Your task to perform on an android device: toggle javascript in the chrome app Image 0: 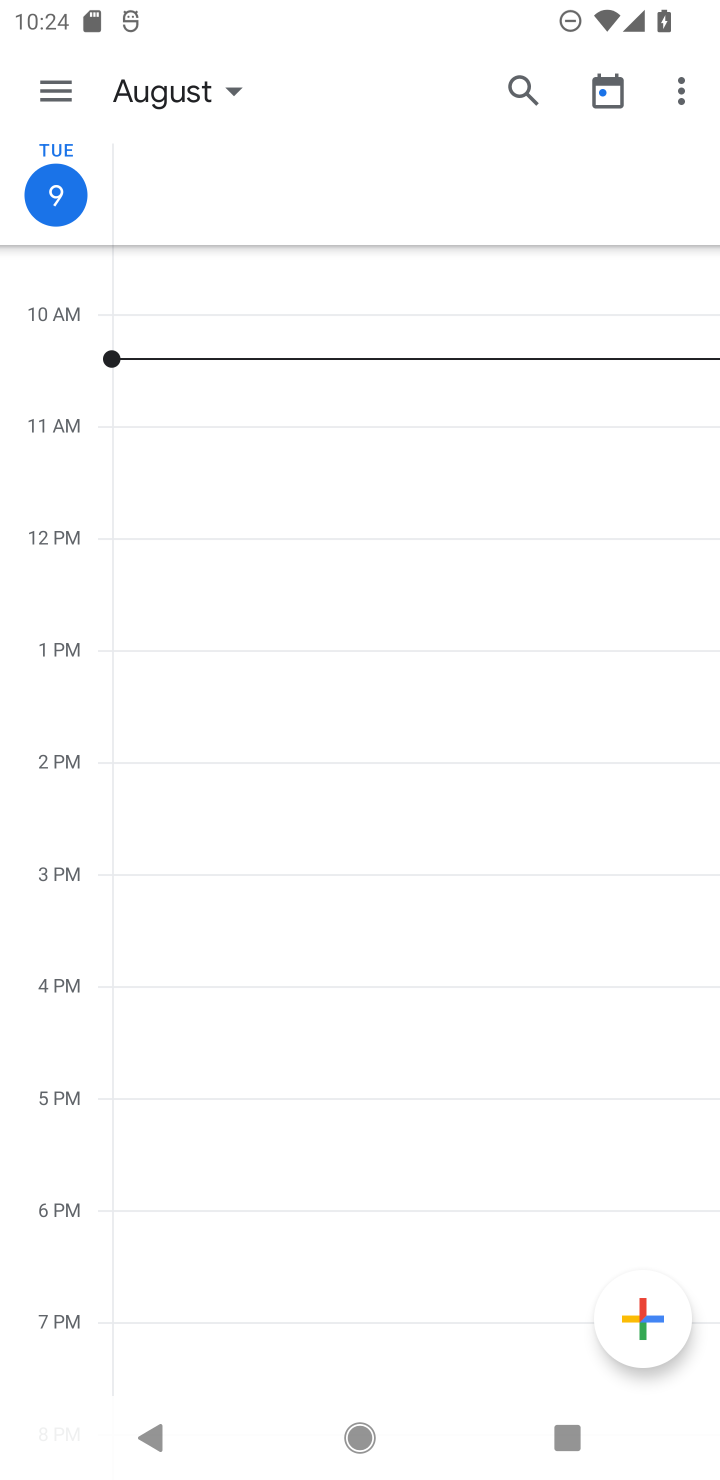
Step 0: press home button
Your task to perform on an android device: toggle javascript in the chrome app Image 1: 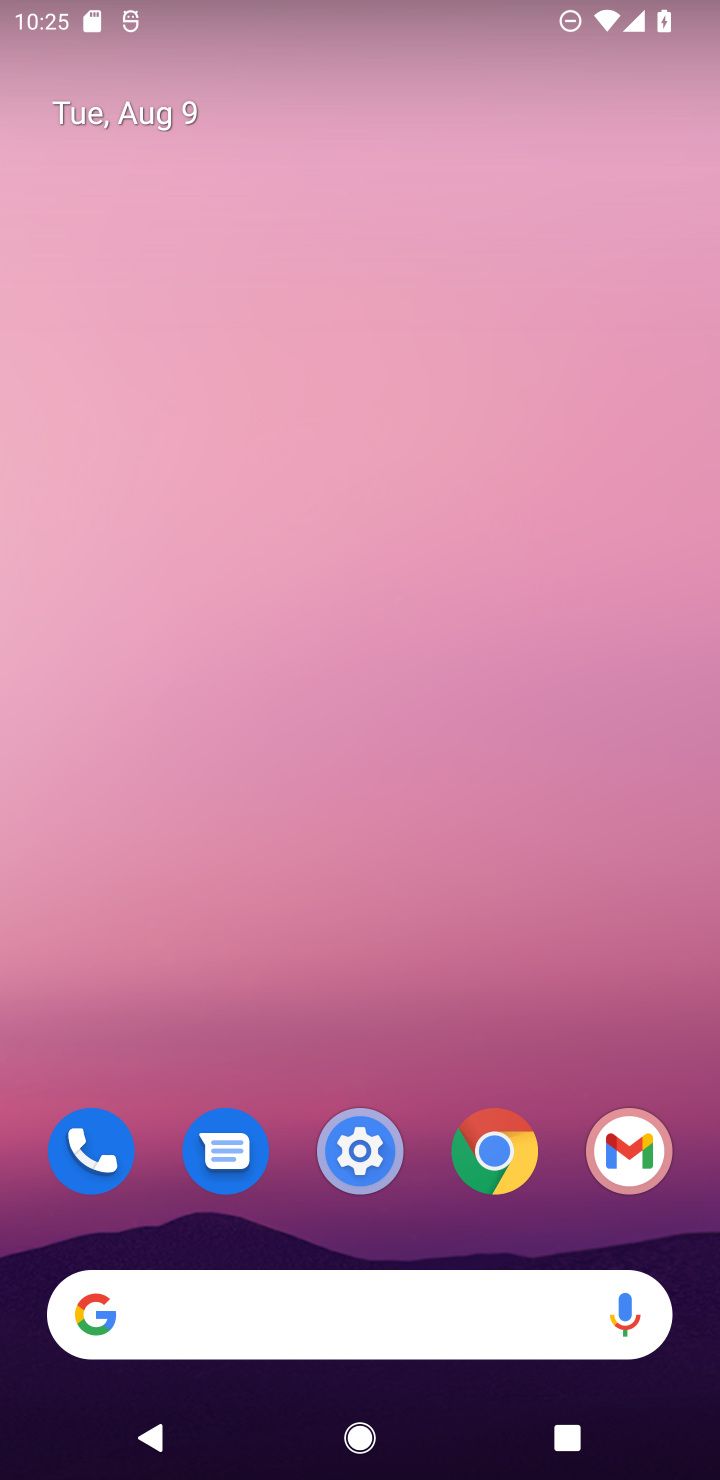
Step 1: click (489, 1130)
Your task to perform on an android device: toggle javascript in the chrome app Image 2: 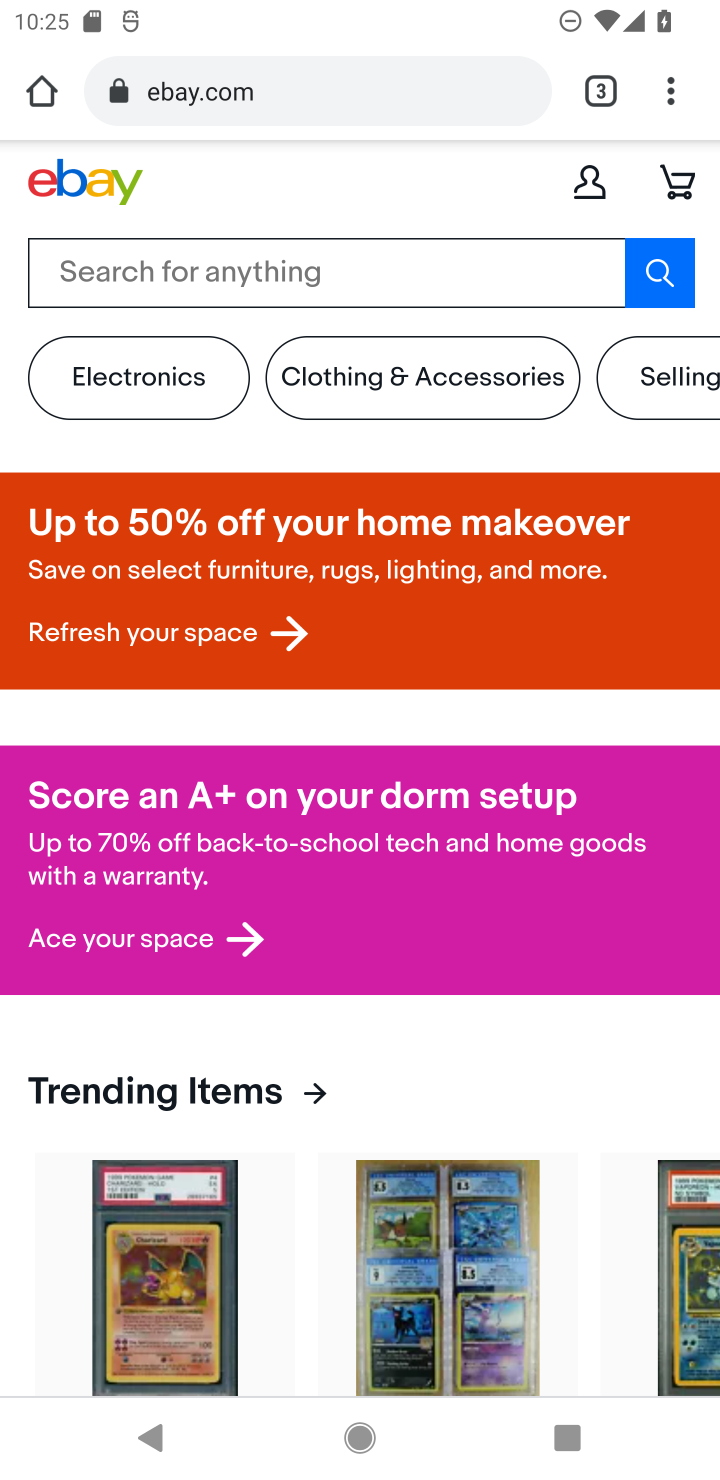
Step 2: click (668, 93)
Your task to perform on an android device: toggle javascript in the chrome app Image 3: 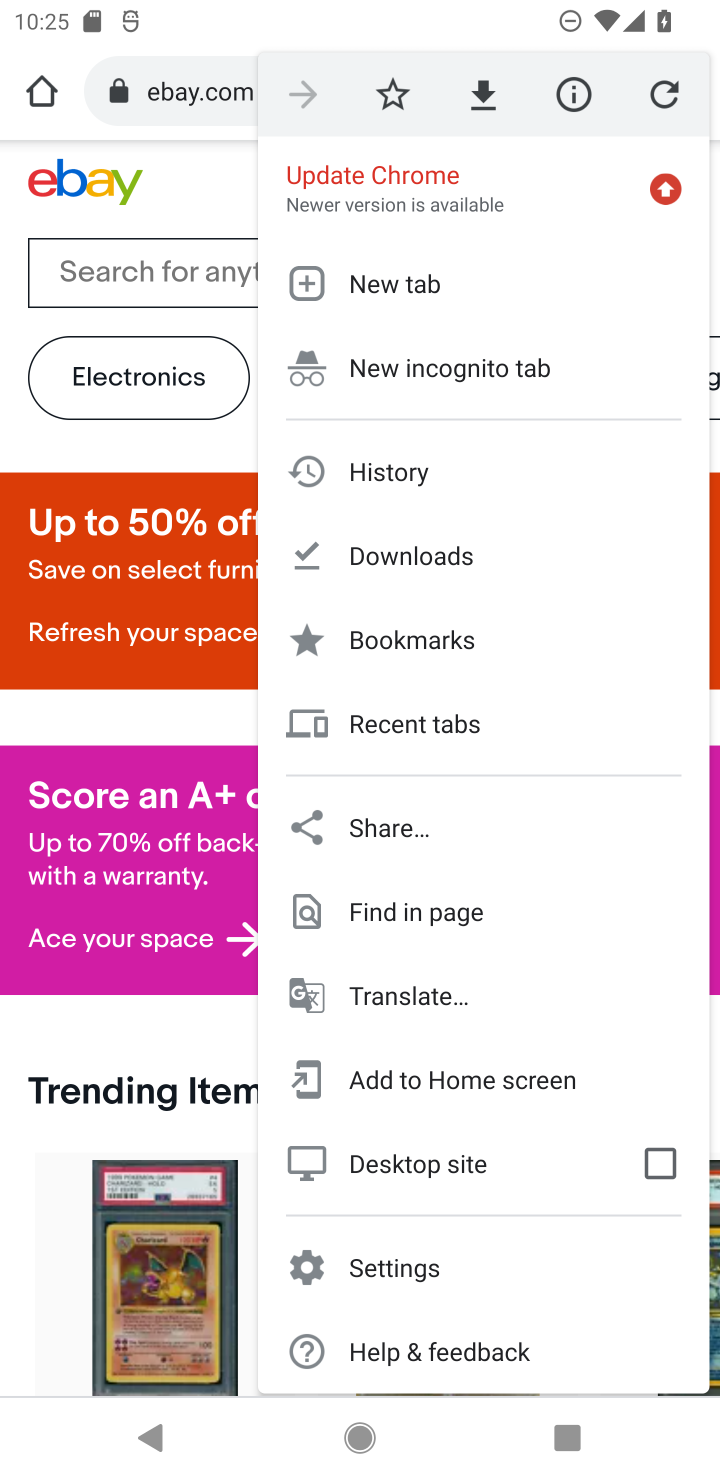
Step 3: click (386, 1250)
Your task to perform on an android device: toggle javascript in the chrome app Image 4: 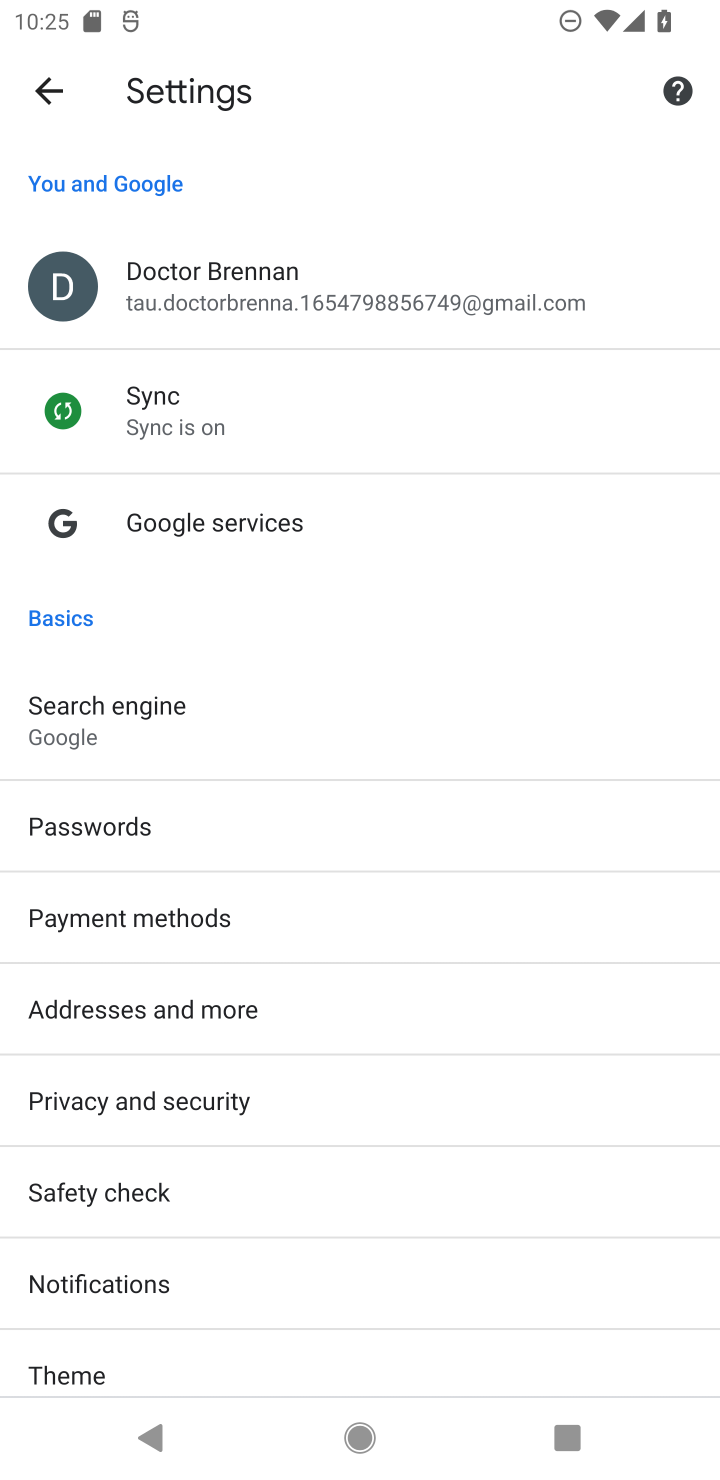
Step 4: drag from (278, 1264) to (256, 340)
Your task to perform on an android device: toggle javascript in the chrome app Image 5: 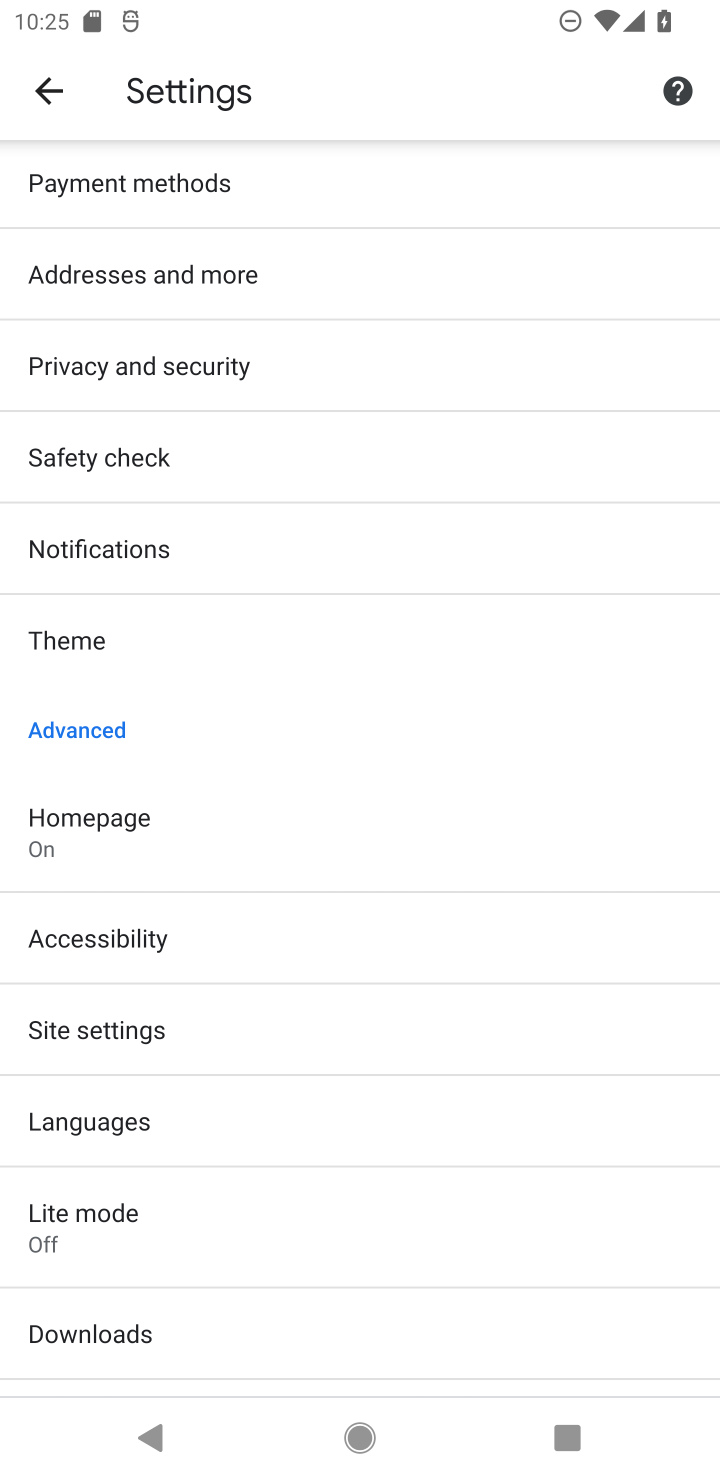
Step 5: click (78, 1033)
Your task to perform on an android device: toggle javascript in the chrome app Image 6: 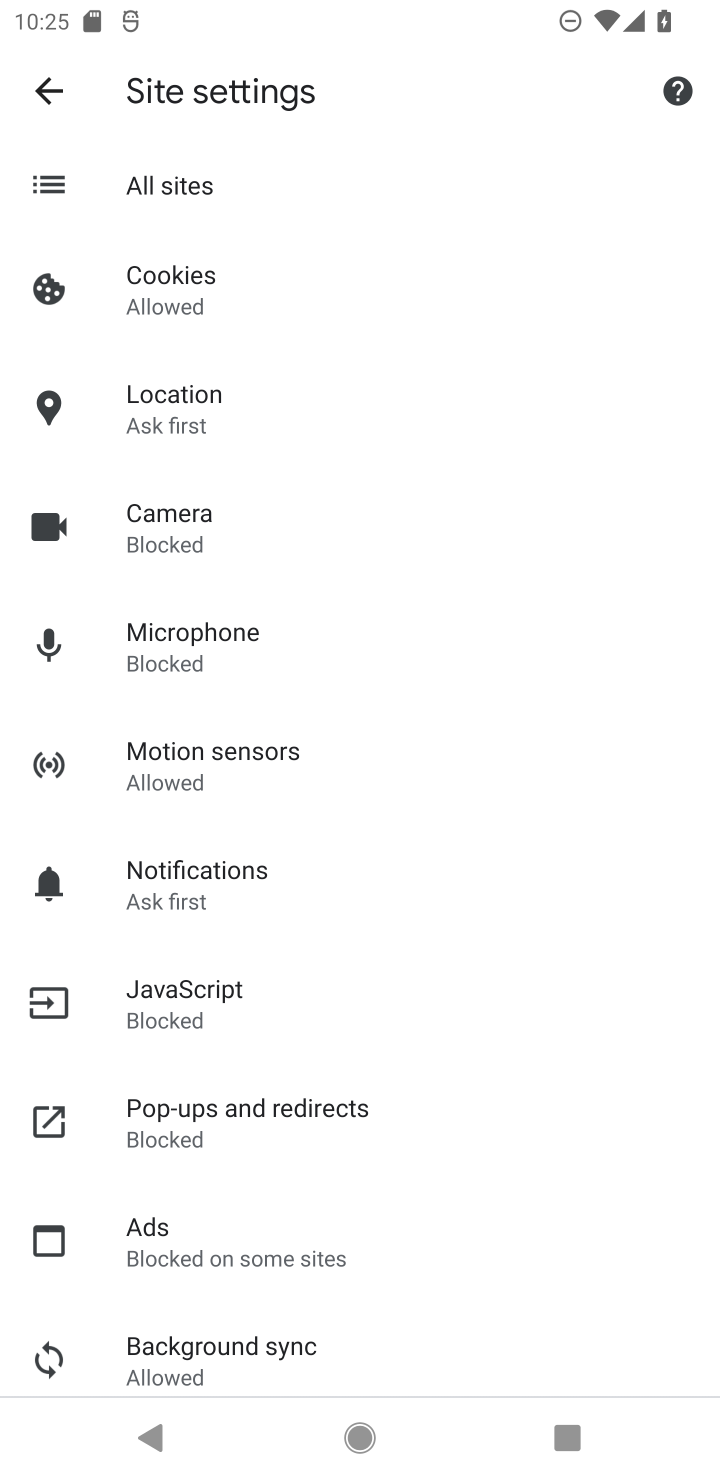
Step 6: click (216, 1002)
Your task to perform on an android device: toggle javascript in the chrome app Image 7: 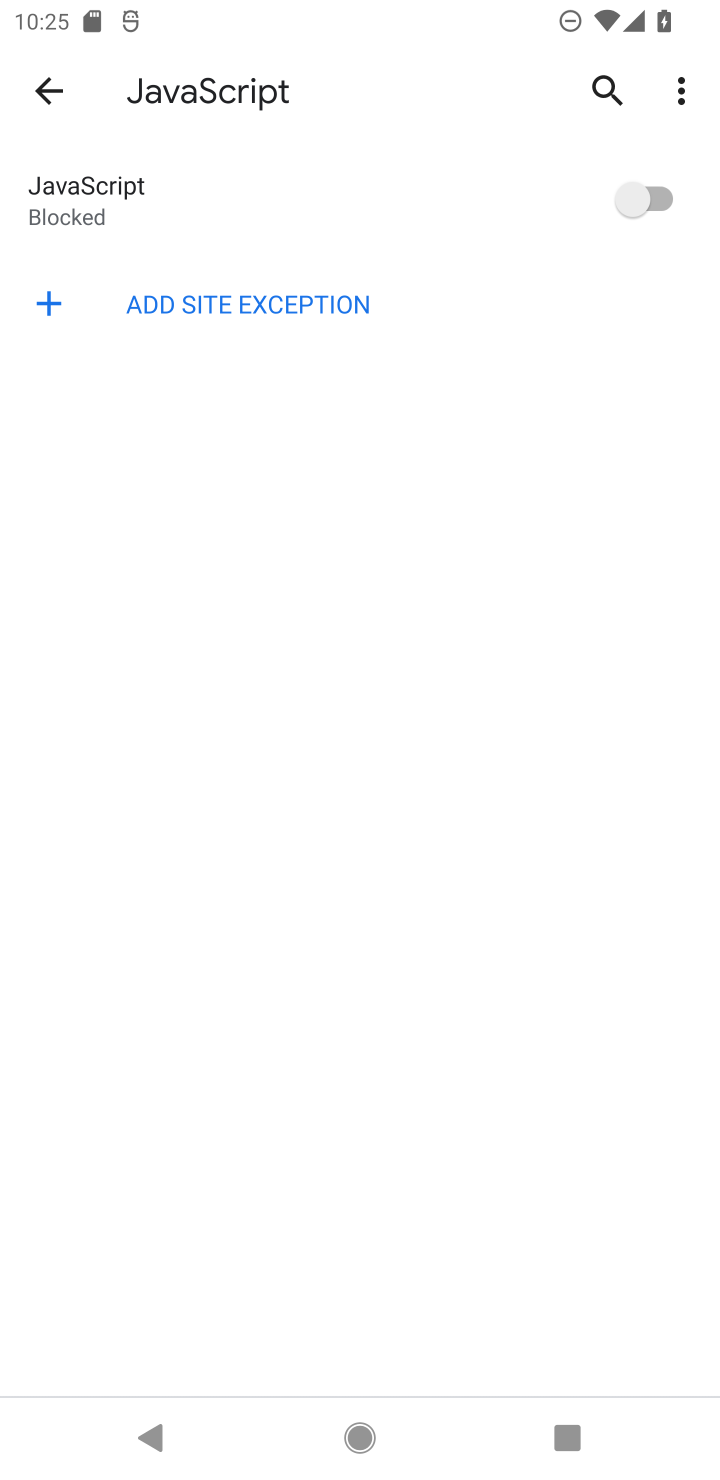
Step 7: click (628, 200)
Your task to perform on an android device: toggle javascript in the chrome app Image 8: 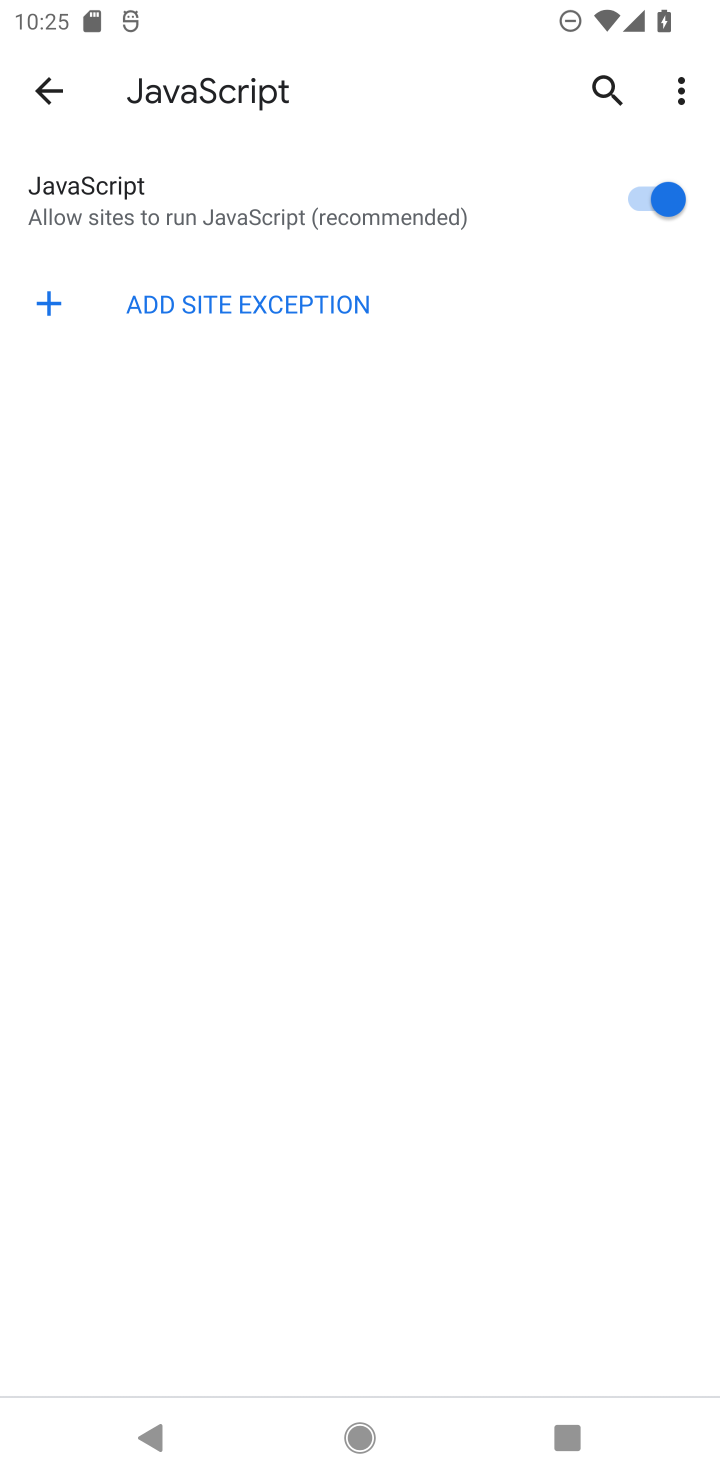
Step 8: task complete